Your task to perform on an android device: clear history in the chrome app Image 0: 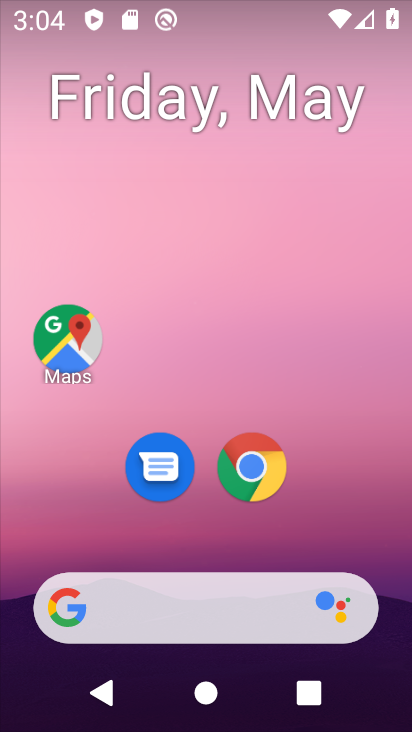
Step 0: click (252, 459)
Your task to perform on an android device: clear history in the chrome app Image 1: 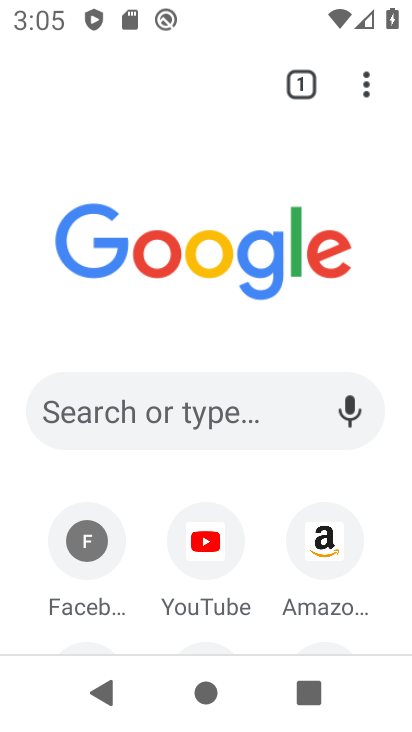
Step 1: click (365, 91)
Your task to perform on an android device: clear history in the chrome app Image 2: 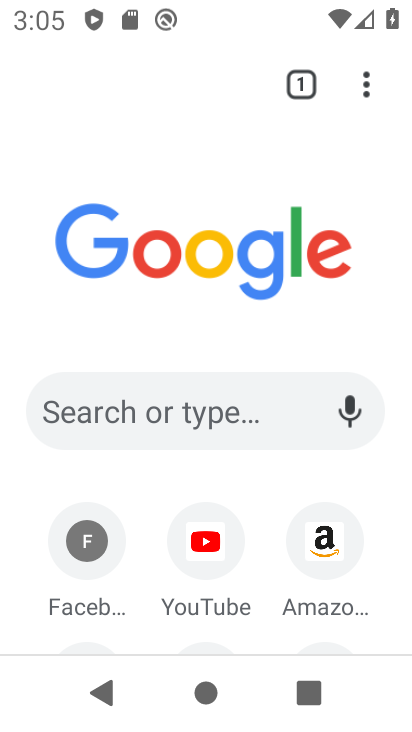
Step 2: click (364, 84)
Your task to perform on an android device: clear history in the chrome app Image 3: 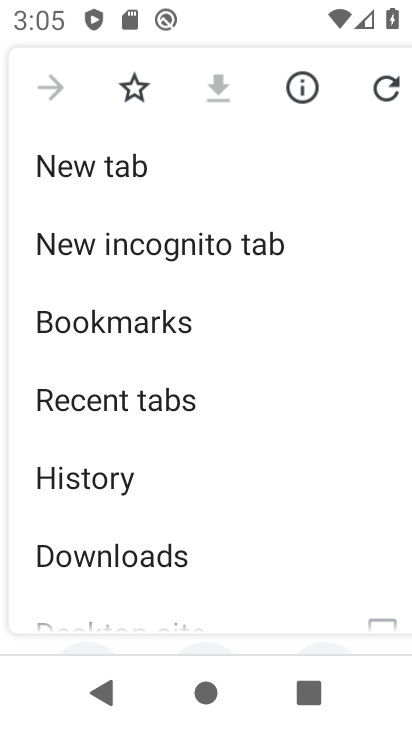
Step 3: click (99, 482)
Your task to perform on an android device: clear history in the chrome app Image 4: 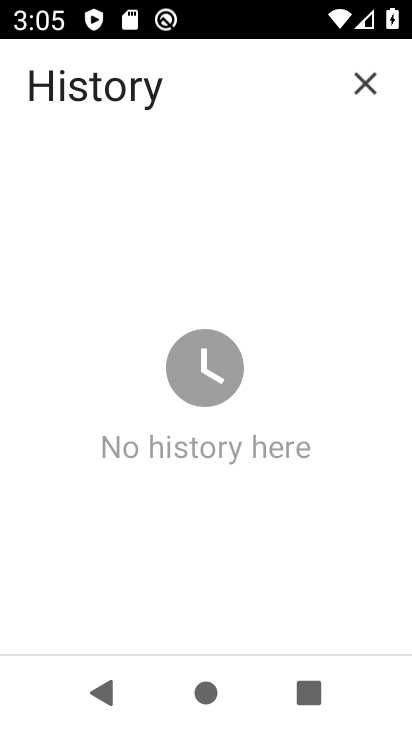
Step 4: task complete